Your task to perform on an android device: see sites visited before in the chrome app Image 0: 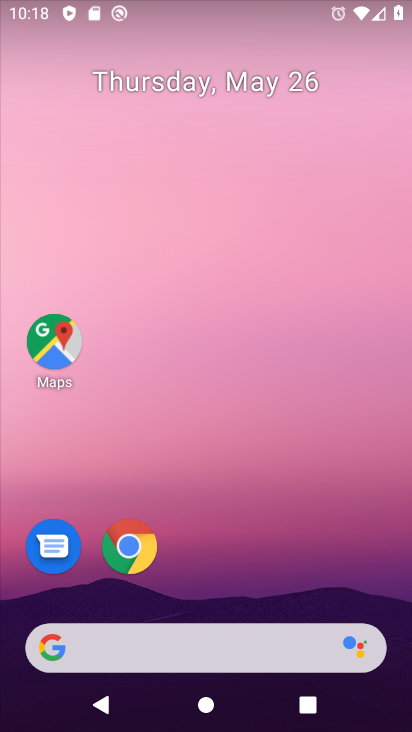
Step 0: click (130, 545)
Your task to perform on an android device: see sites visited before in the chrome app Image 1: 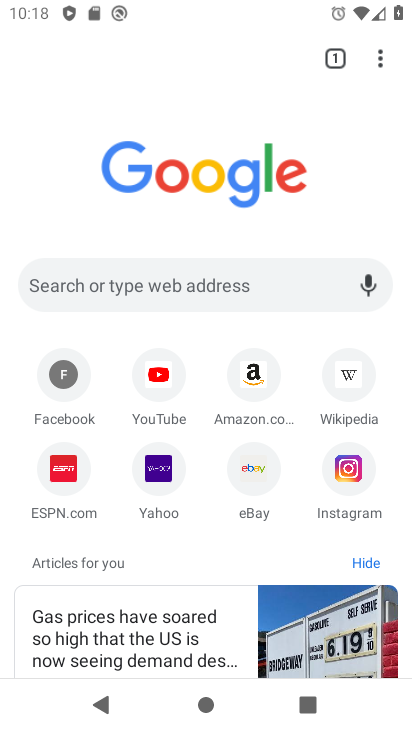
Step 1: click (380, 58)
Your task to perform on an android device: see sites visited before in the chrome app Image 2: 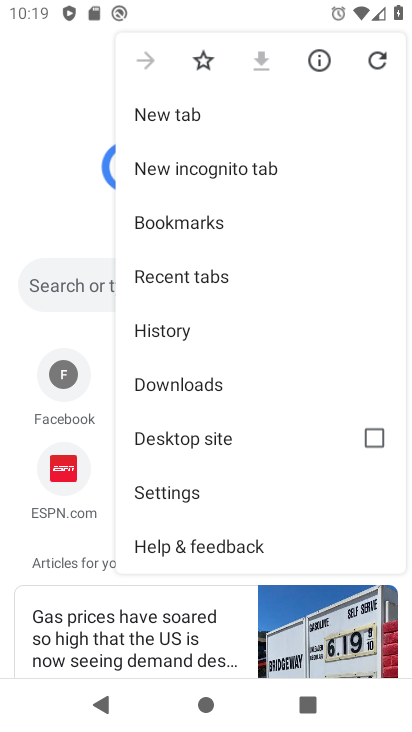
Step 2: click (177, 334)
Your task to perform on an android device: see sites visited before in the chrome app Image 3: 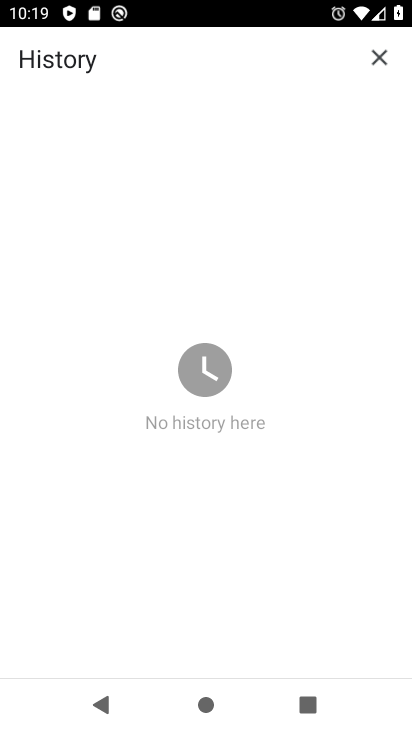
Step 3: task complete